Your task to perform on an android device: Go to Google maps Image 0: 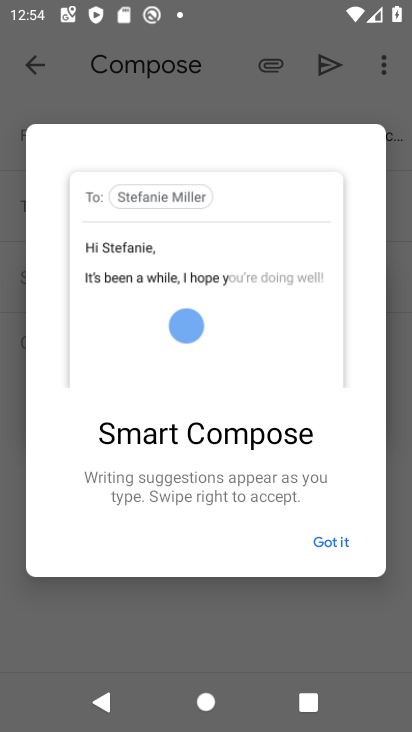
Step 0: press home button
Your task to perform on an android device: Go to Google maps Image 1: 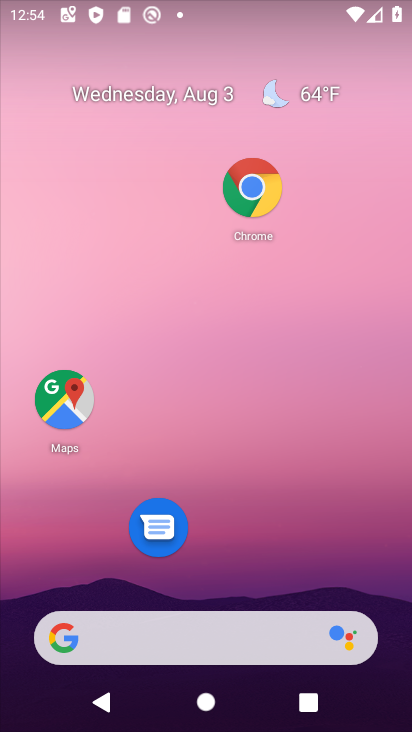
Step 1: click (74, 403)
Your task to perform on an android device: Go to Google maps Image 2: 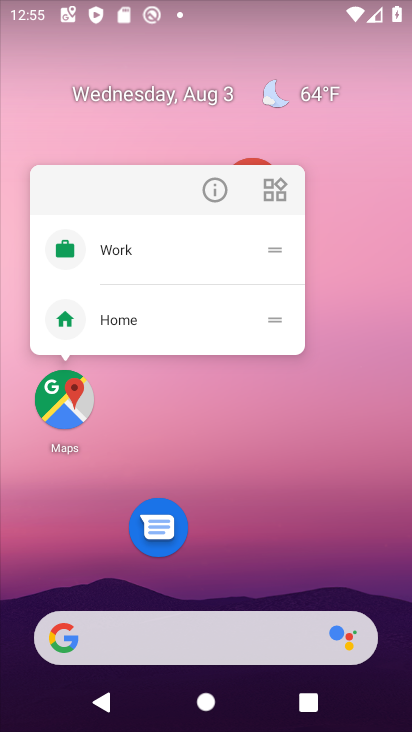
Step 2: click (66, 401)
Your task to perform on an android device: Go to Google maps Image 3: 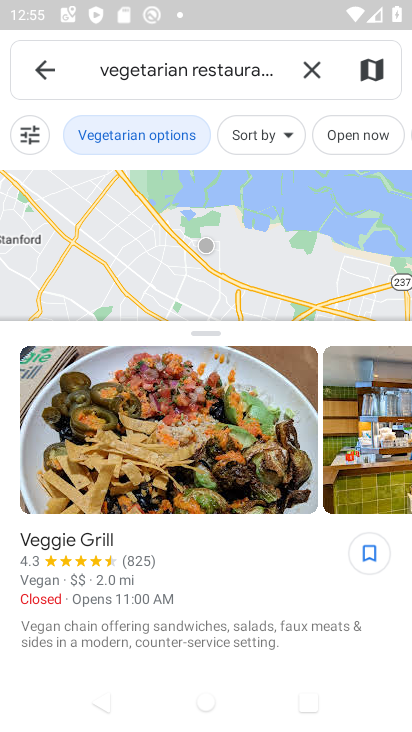
Step 3: click (48, 74)
Your task to perform on an android device: Go to Google maps Image 4: 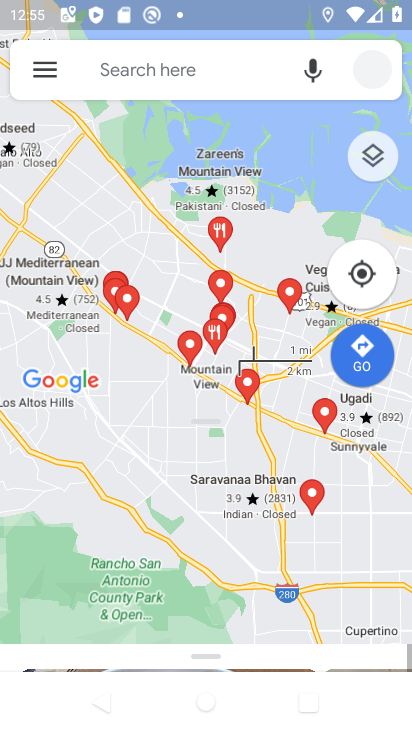
Step 4: task complete